Your task to perform on an android device: Open Google Maps Image 0: 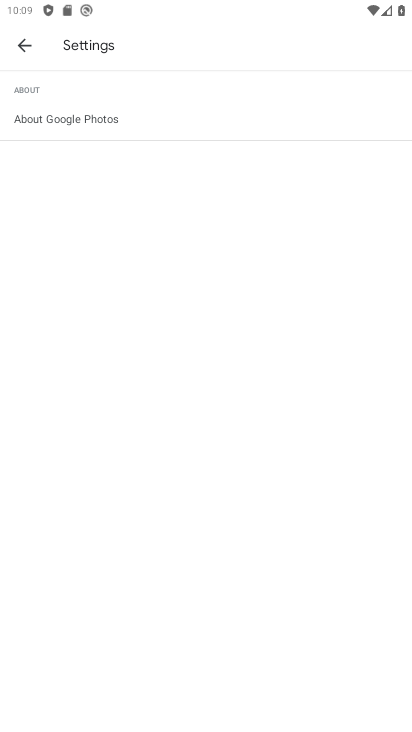
Step 0: press home button
Your task to perform on an android device: Open Google Maps Image 1: 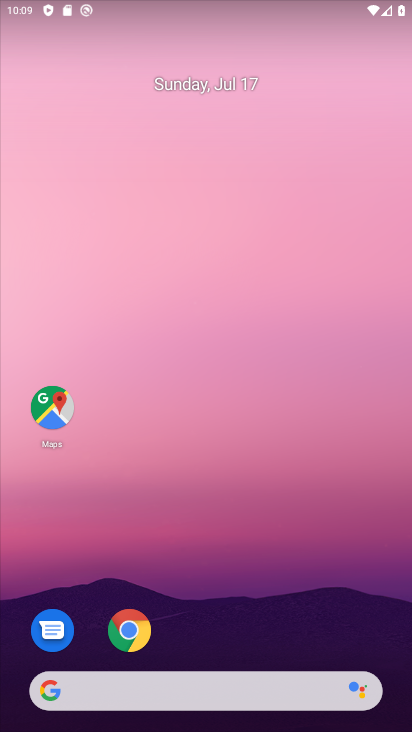
Step 1: click (51, 408)
Your task to perform on an android device: Open Google Maps Image 2: 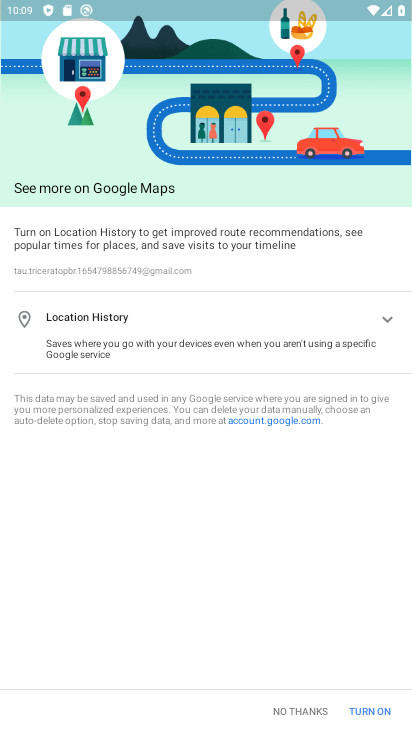
Step 2: click (304, 711)
Your task to perform on an android device: Open Google Maps Image 3: 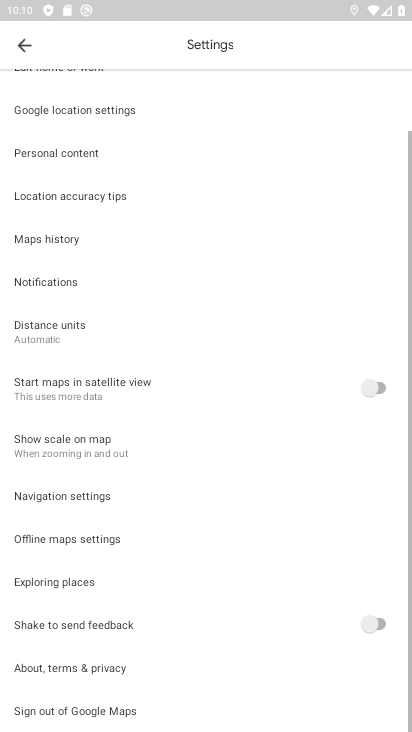
Step 3: task complete